Your task to perform on an android device: Go to Google Image 0: 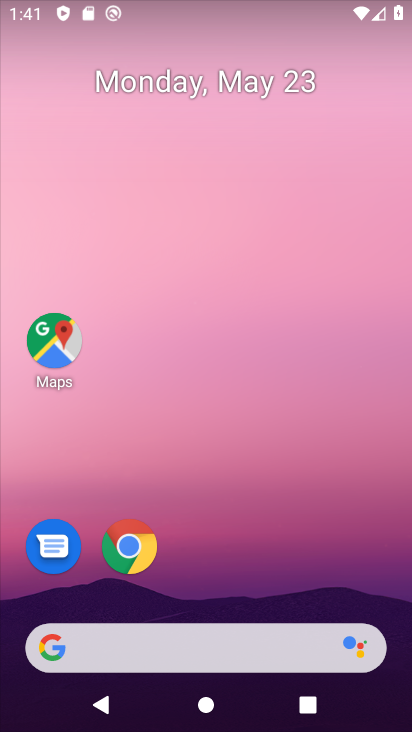
Step 0: drag from (225, 527) to (283, 60)
Your task to perform on an android device: Go to Google Image 1: 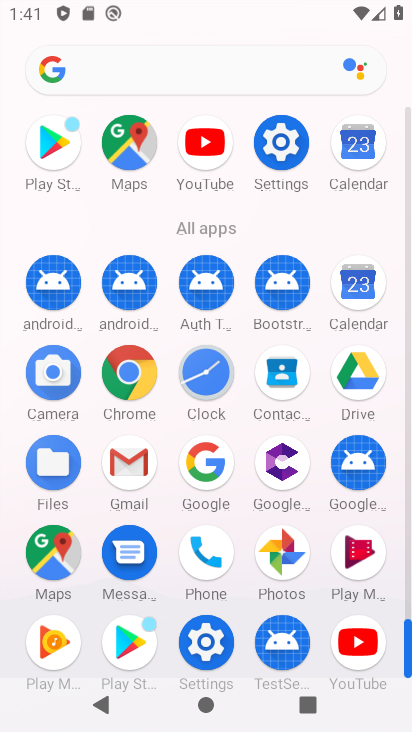
Step 1: click (197, 483)
Your task to perform on an android device: Go to Google Image 2: 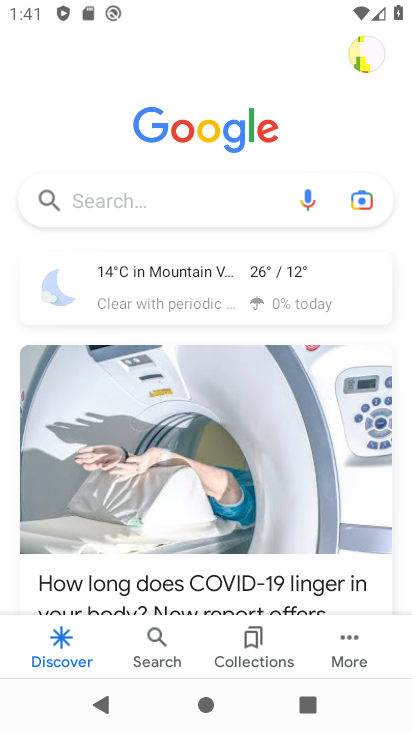
Step 2: task complete